Your task to perform on an android device: Open Chrome and go to settings Image 0: 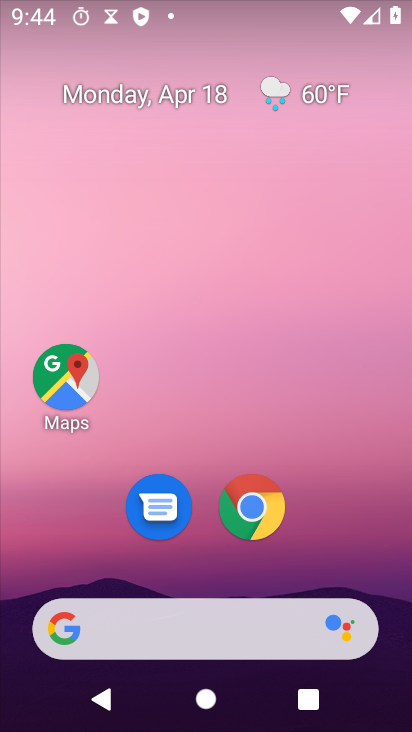
Step 0: click (250, 511)
Your task to perform on an android device: Open Chrome and go to settings Image 1: 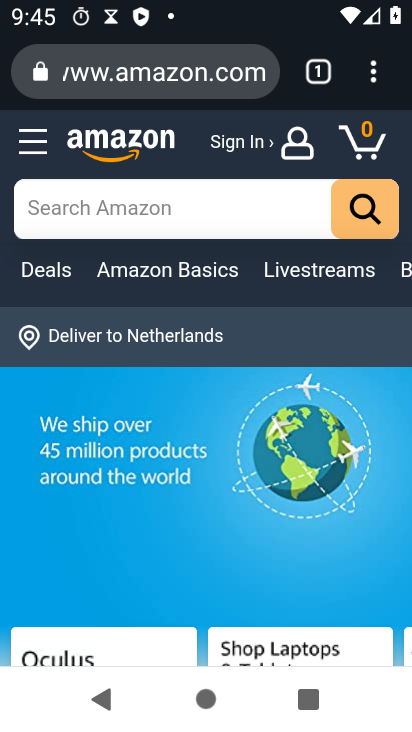
Step 1: click (364, 71)
Your task to perform on an android device: Open Chrome and go to settings Image 2: 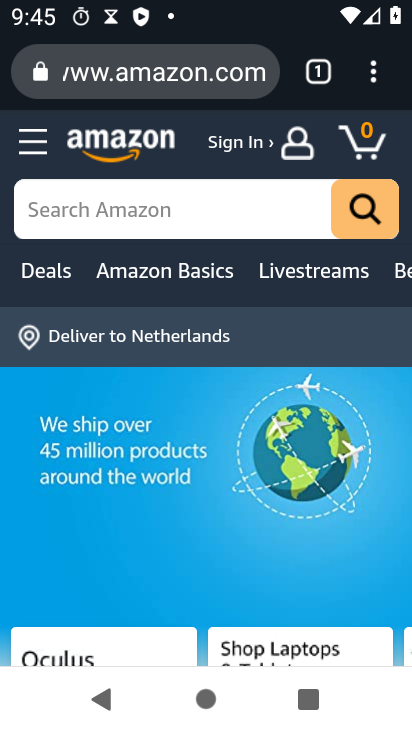
Step 2: click (362, 67)
Your task to perform on an android device: Open Chrome and go to settings Image 3: 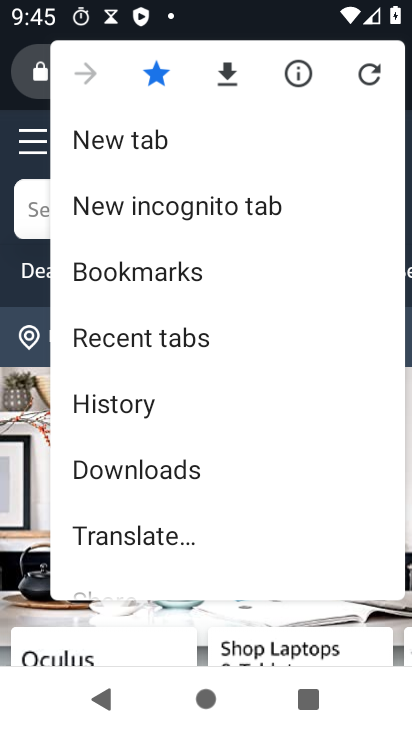
Step 3: drag from (195, 510) to (209, 325)
Your task to perform on an android device: Open Chrome and go to settings Image 4: 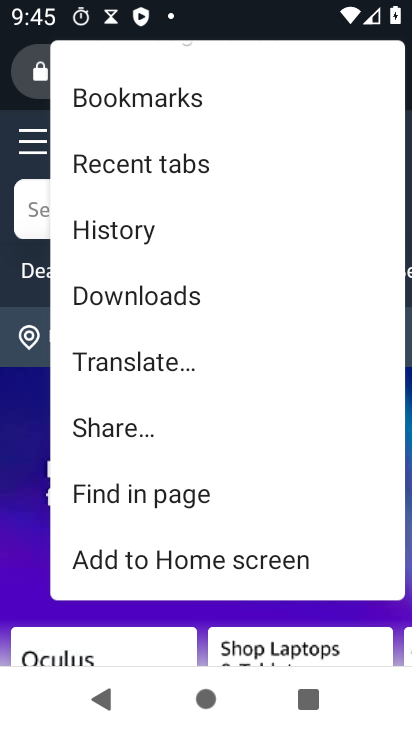
Step 4: drag from (233, 474) to (268, 322)
Your task to perform on an android device: Open Chrome and go to settings Image 5: 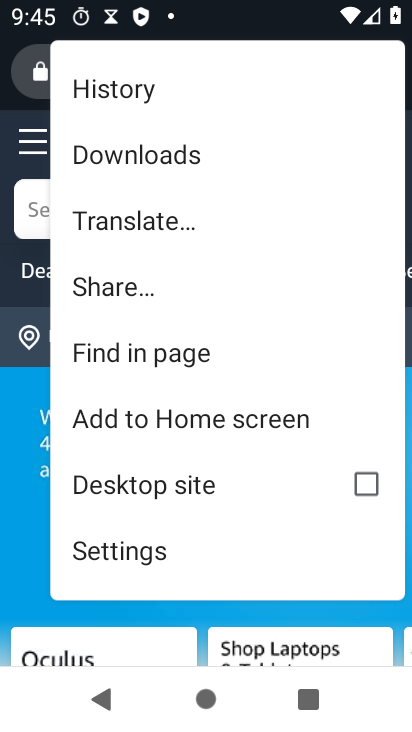
Step 5: click (282, 550)
Your task to perform on an android device: Open Chrome and go to settings Image 6: 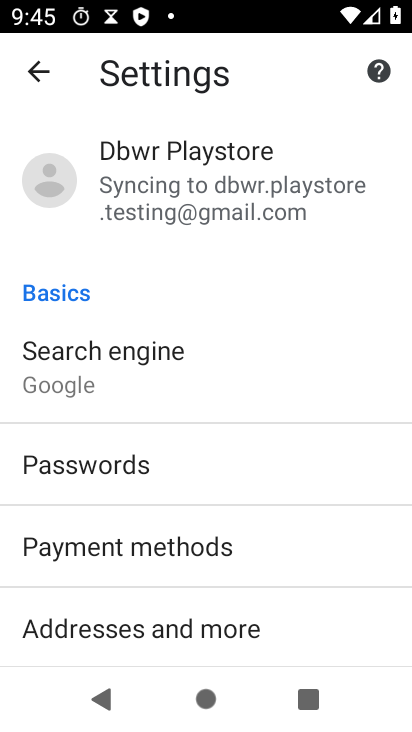
Step 6: task complete